Your task to perform on an android device: turn on data saver in the chrome app Image 0: 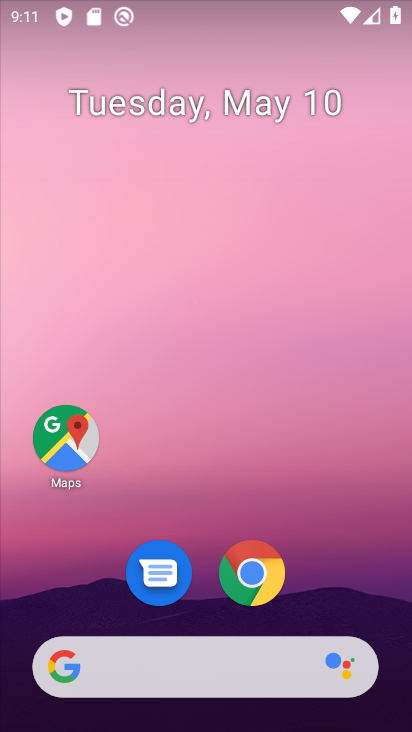
Step 0: click (243, 582)
Your task to perform on an android device: turn on data saver in the chrome app Image 1: 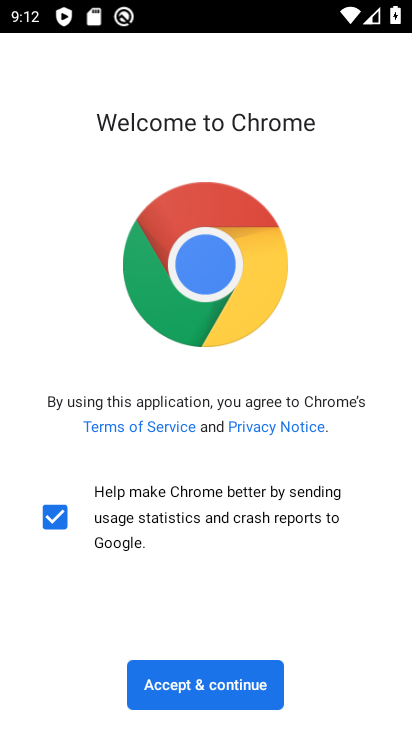
Step 1: click (189, 679)
Your task to perform on an android device: turn on data saver in the chrome app Image 2: 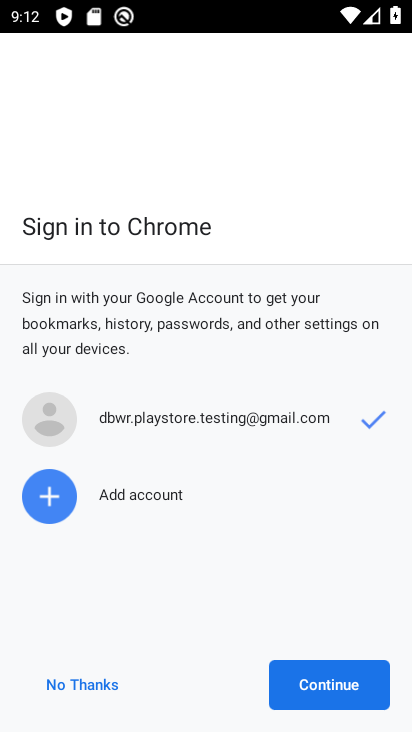
Step 2: click (302, 685)
Your task to perform on an android device: turn on data saver in the chrome app Image 3: 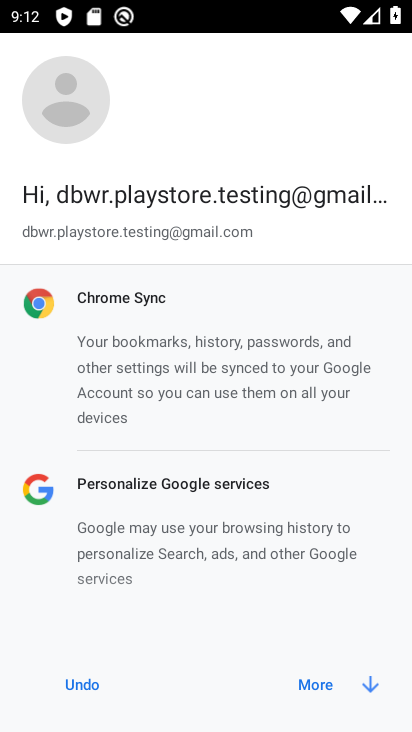
Step 3: click (372, 682)
Your task to perform on an android device: turn on data saver in the chrome app Image 4: 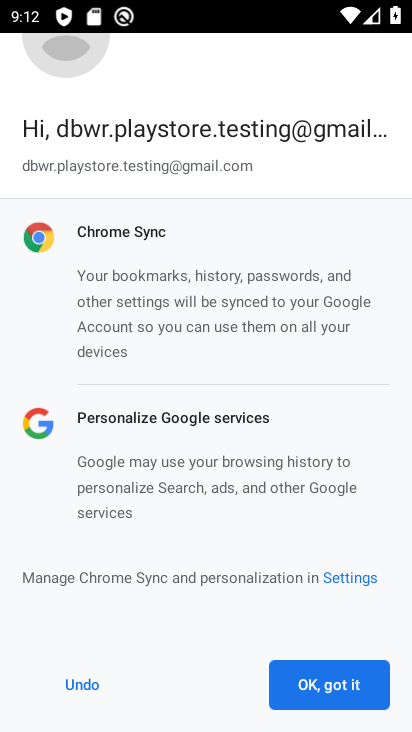
Step 4: click (332, 682)
Your task to perform on an android device: turn on data saver in the chrome app Image 5: 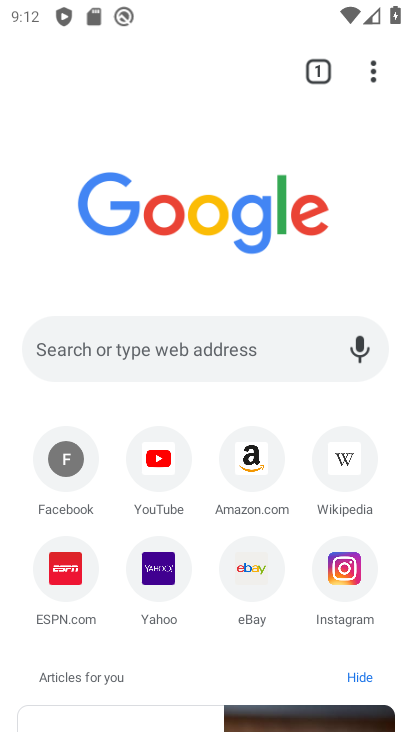
Step 5: click (373, 68)
Your task to perform on an android device: turn on data saver in the chrome app Image 6: 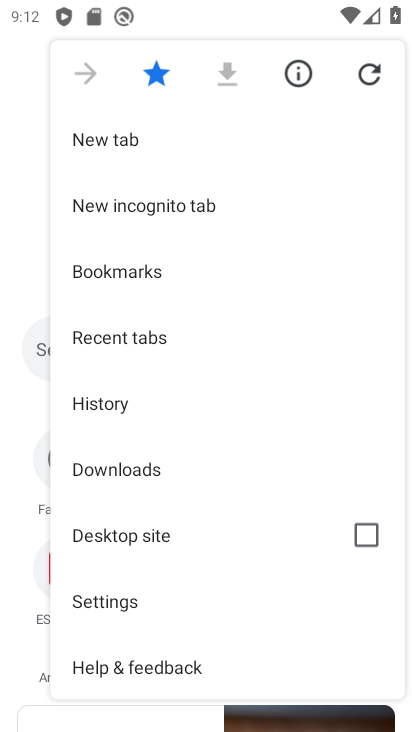
Step 6: drag from (207, 512) to (170, 158)
Your task to perform on an android device: turn on data saver in the chrome app Image 7: 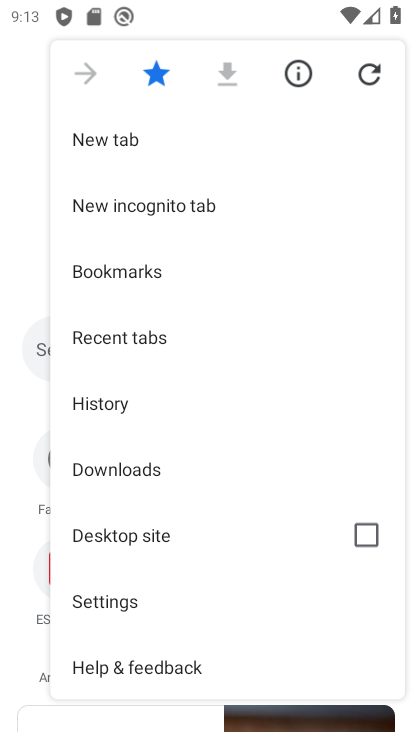
Step 7: click (116, 596)
Your task to perform on an android device: turn on data saver in the chrome app Image 8: 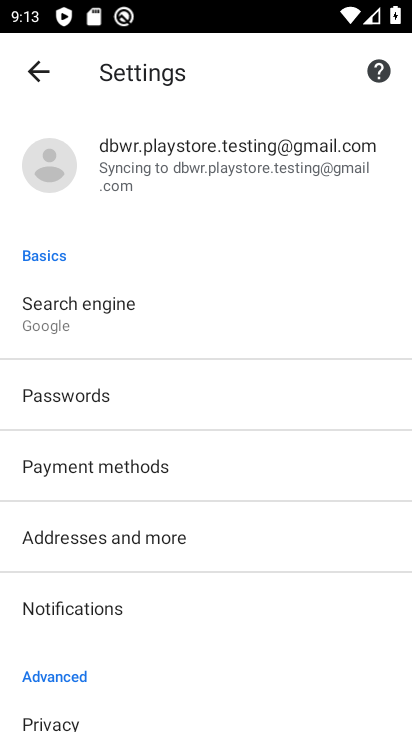
Step 8: drag from (195, 536) to (181, 228)
Your task to perform on an android device: turn on data saver in the chrome app Image 9: 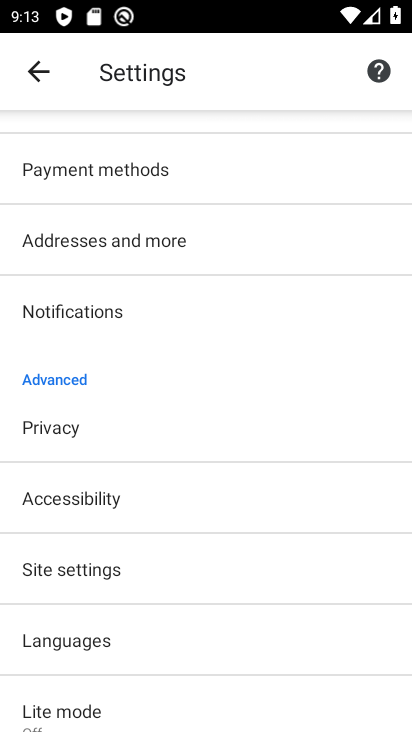
Step 9: drag from (172, 523) to (143, 328)
Your task to perform on an android device: turn on data saver in the chrome app Image 10: 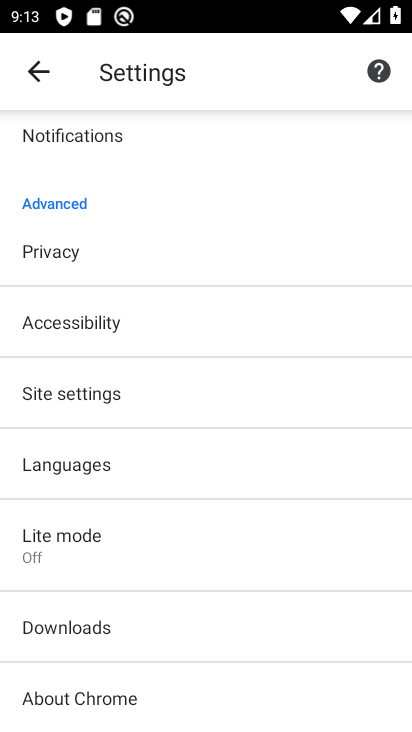
Step 10: click (63, 537)
Your task to perform on an android device: turn on data saver in the chrome app Image 11: 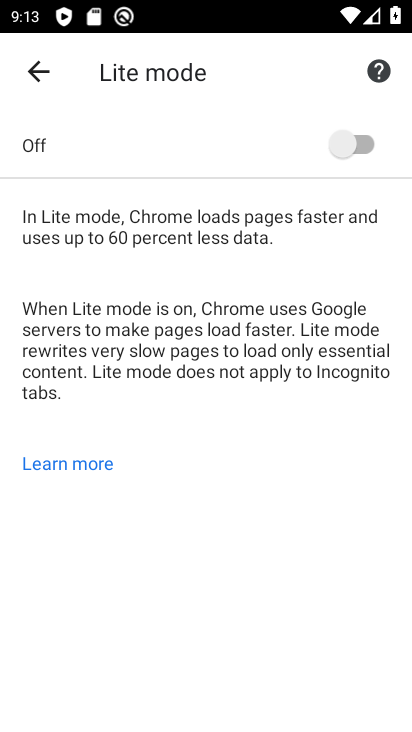
Step 11: click (354, 141)
Your task to perform on an android device: turn on data saver in the chrome app Image 12: 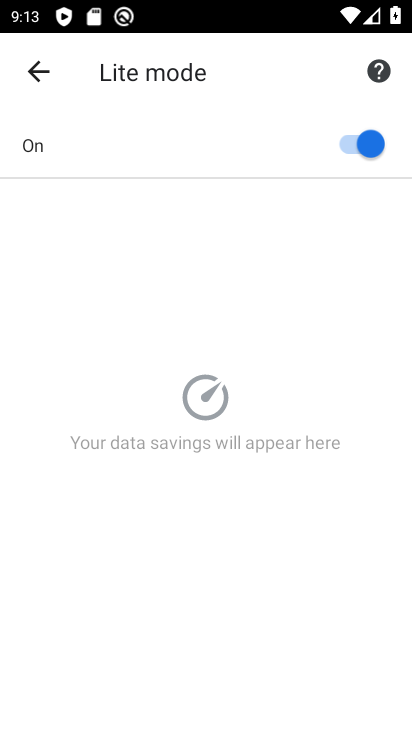
Step 12: task complete